Your task to perform on an android device: Go to notification settings Image 0: 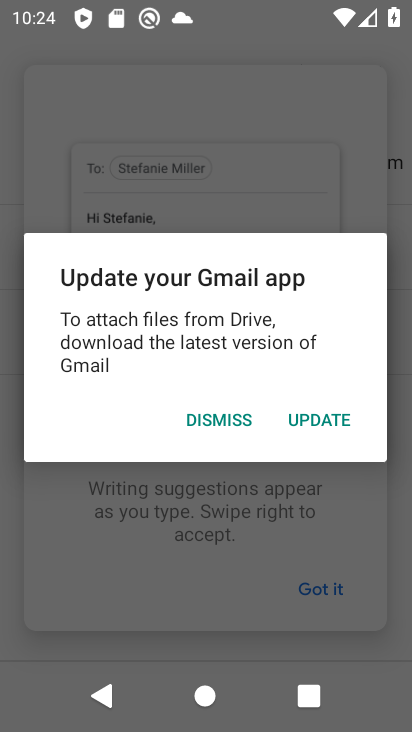
Step 0: press home button
Your task to perform on an android device: Go to notification settings Image 1: 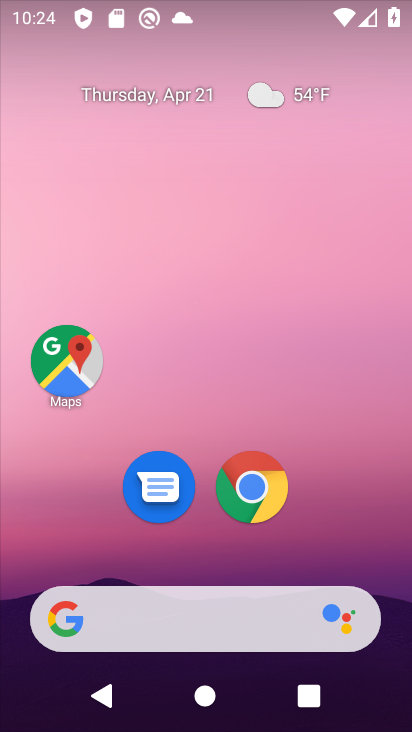
Step 1: drag from (364, 464) to (368, 204)
Your task to perform on an android device: Go to notification settings Image 2: 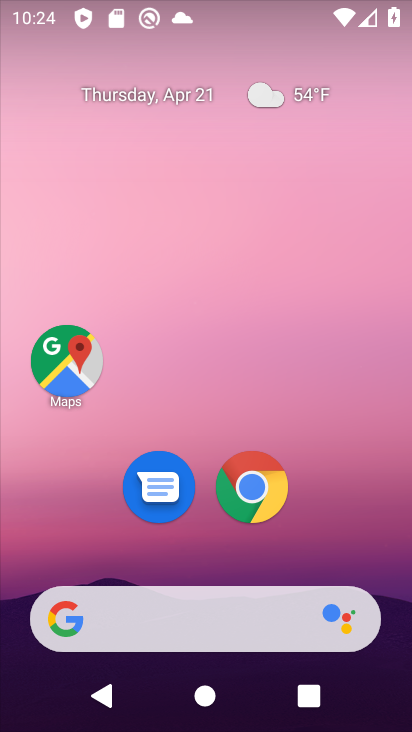
Step 2: drag from (355, 500) to (376, 135)
Your task to perform on an android device: Go to notification settings Image 3: 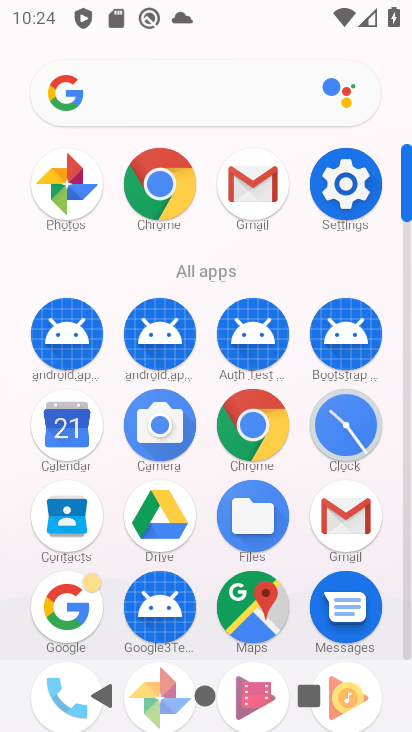
Step 3: click (351, 201)
Your task to perform on an android device: Go to notification settings Image 4: 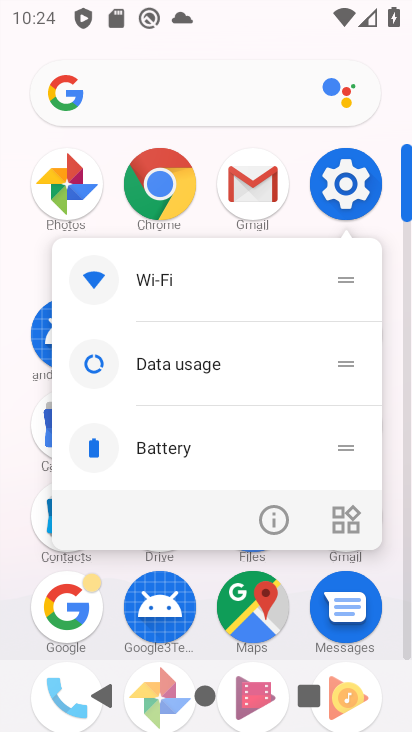
Step 4: click (351, 195)
Your task to perform on an android device: Go to notification settings Image 5: 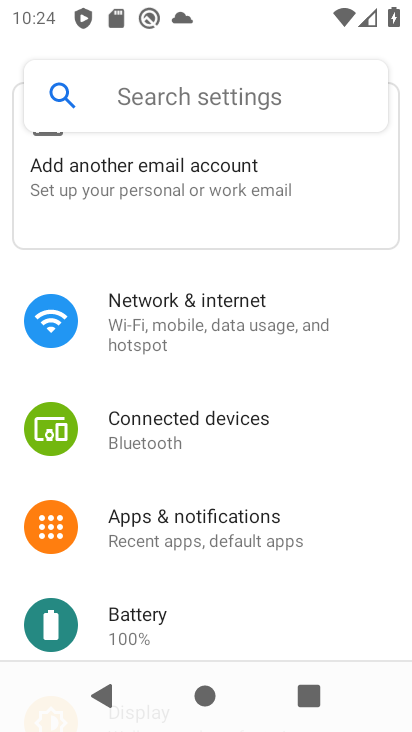
Step 5: click (198, 528)
Your task to perform on an android device: Go to notification settings Image 6: 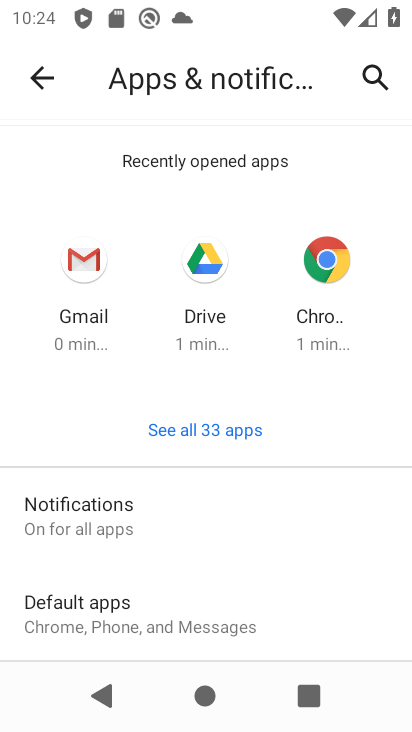
Step 6: click (119, 522)
Your task to perform on an android device: Go to notification settings Image 7: 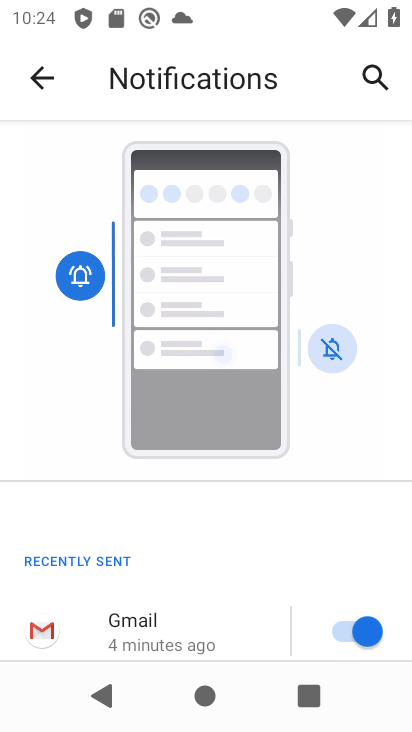
Step 7: task complete